Your task to perform on an android device: open the mobile data screen to see how much data has been used Image 0: 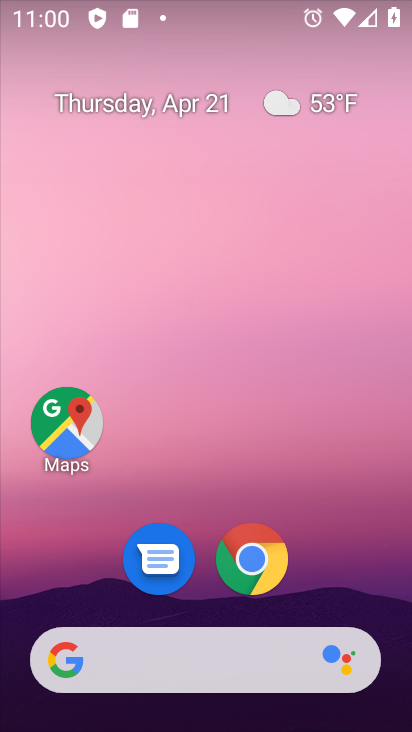
Step 0: drag from (286, 667) to (152, 170)
Your task to perform on an android device: open the mobile data screen to see how much data has been used Image 1: 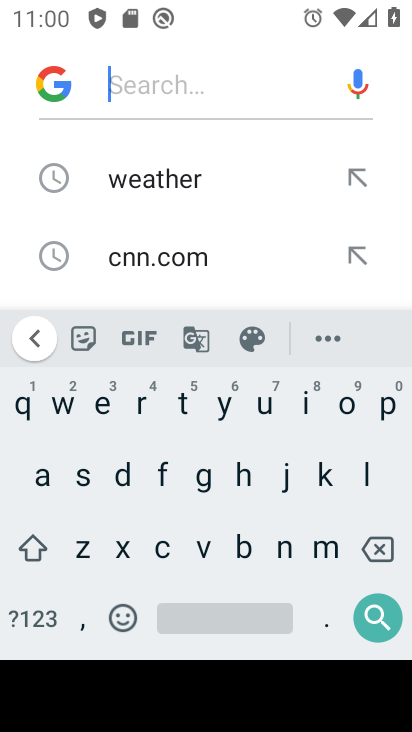
Step 1: press back button
Your task to perform on an android device: open the mobile data screen to see how much data has been used Image 2: 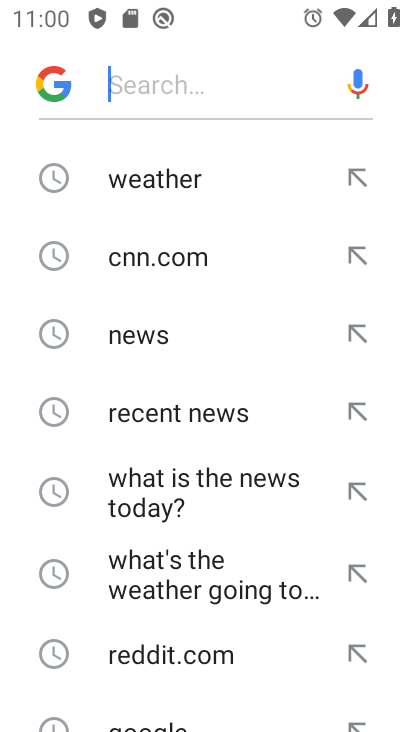
Step 2: press back button
Your task to perform on an android device: open the mobile data screen to see how much data has been used Image 3: 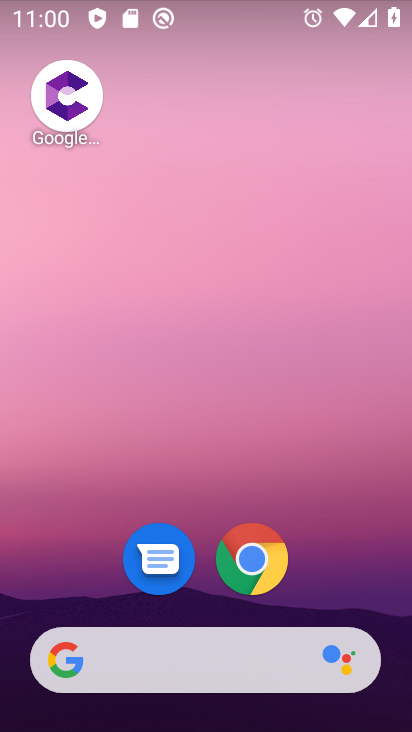
Step 3: drag from (288, 680) to (212, 153)
Your task to perform on an android device: open the mobile data screen to see how much data has been used Image 4: 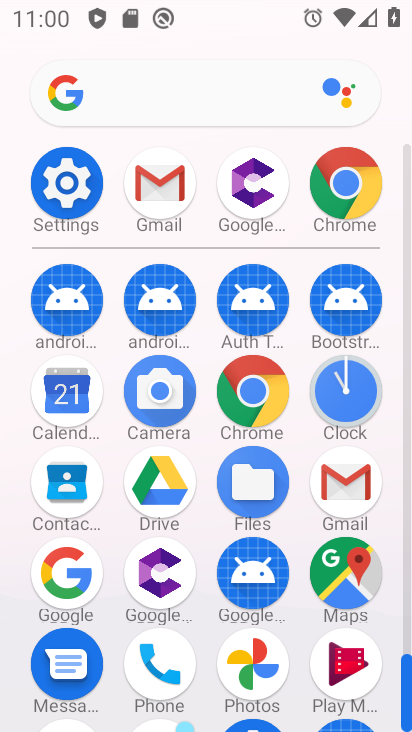
Step 4: click (82, 190)
Your task to perform on an android device: open the mobile data screen to see how much data has been used Image 5: 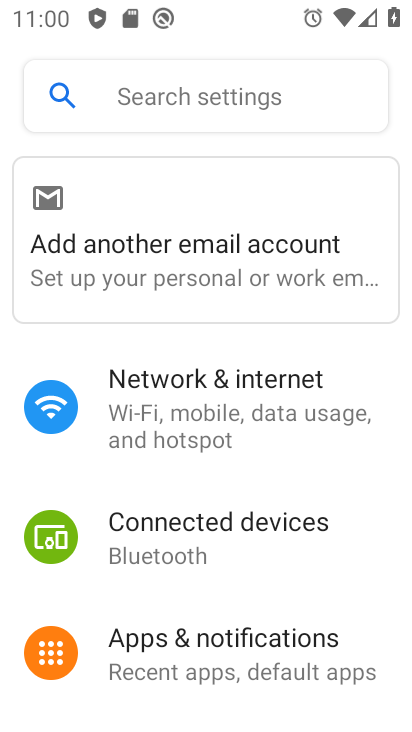
Step 5: click (158, 117)
Your task to perform on an android device: open the mobile data screen to see how much data has been used Image 6: 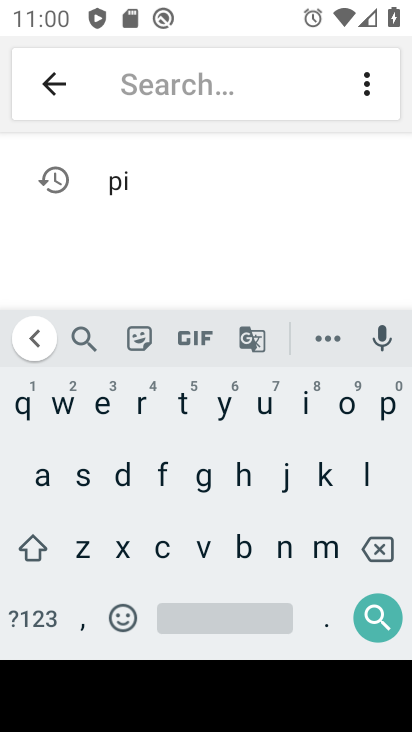
Step 6: click (119, 475)
Your task to perform on an android device: open the mobile data screen to see how much data has been used Image 7: 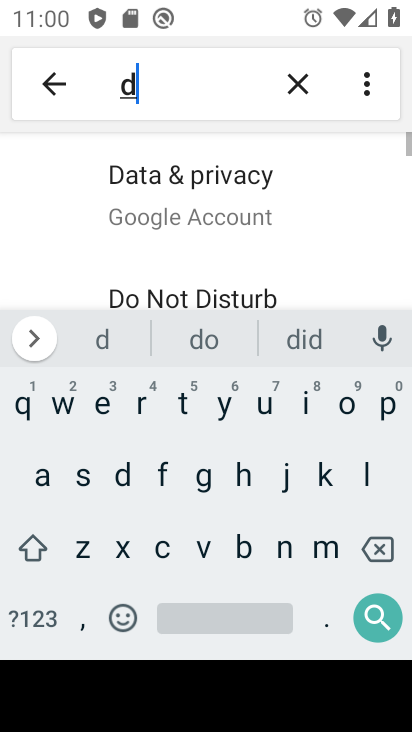
Step 7: click (40, 475)
Your task to perform on an android device: open the mobile data screen to see how much data has been used Image 8: 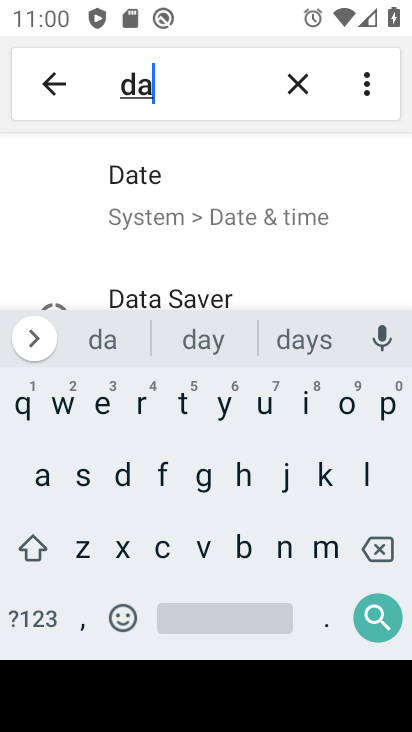
Step 8: click (182, 407)
Your task to perform on an android device: open the mobile data screen to see how much data has been used Image 9: 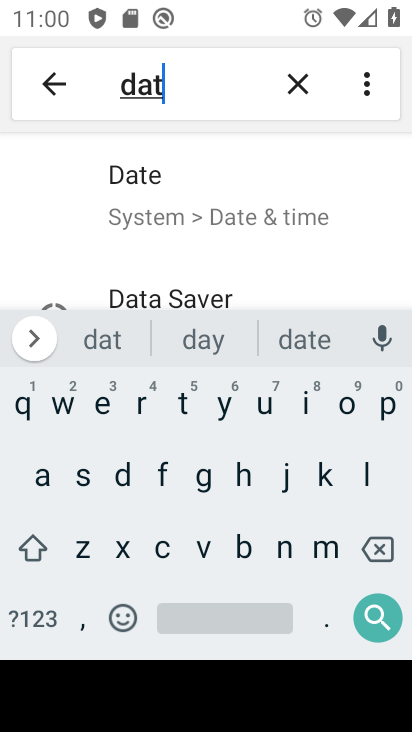
Step 9: click (45, 473)
Your task to perform on an android device: open the mobile data screen to see how much data has been used Image 10: 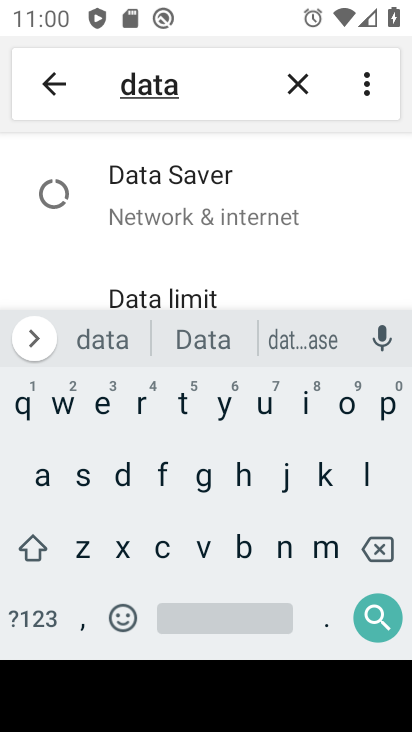
Step 10: click (214, 605)
Your task to perform on an android device: open the mobile data screen to see how much data has been used Image 11: 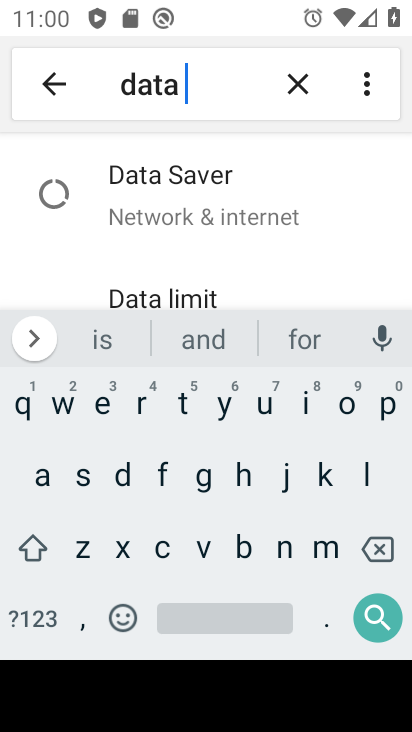
Step 11: click (268, 412)
Your task to perform on an android device: open the mobile data screen to see how much data has been used Image 12: 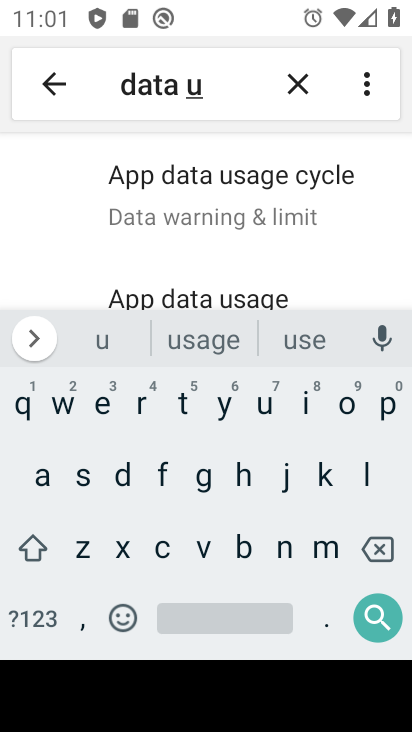
Step 12: click (185, 287)
Your task to perform on an android device: open the mobile data screen to see how much data has been used Image 13: 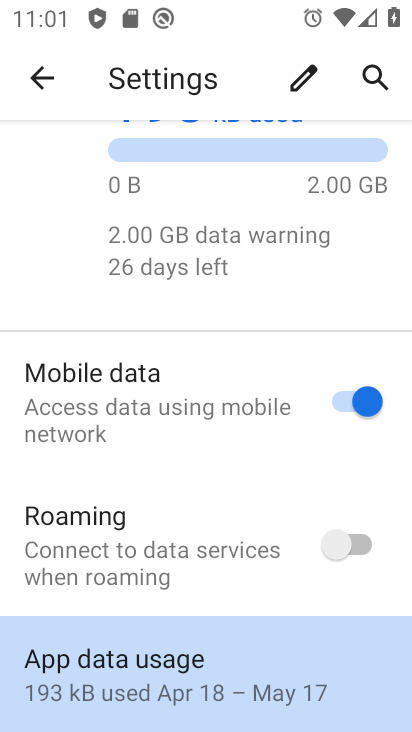
Step 13: click (153, 646)
Your task to perform on an android device: open the mobile data screen to see how much data has been used Image 14: 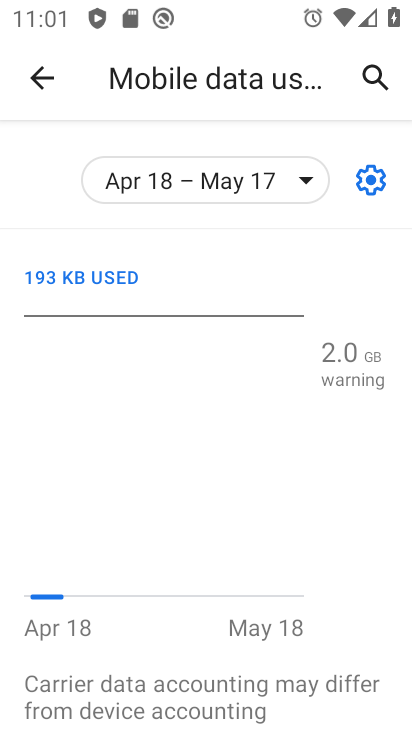
Step 14: task complete